Your task to perform on an android device: What's the weather? Image 0: 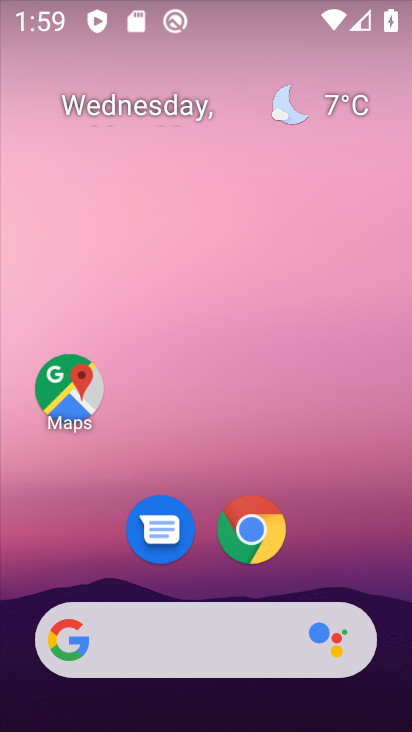
Step 0: press back button
Your task to perform on an android device: What's the weather? Image 1: 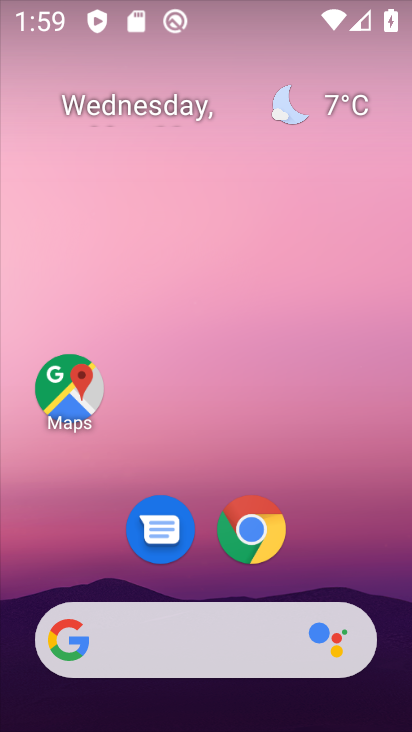
Step 1: press home button
Your task to perform on an android device: What's the weather? Image 2: 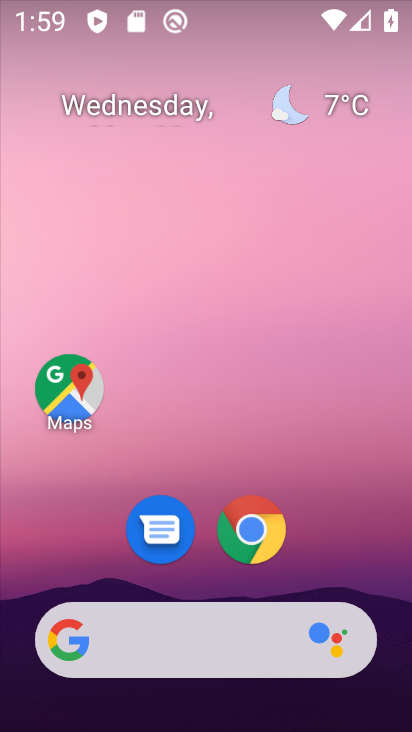
Step 2: click (162, 638)
Your task to perform on an android device: What's the weather? Image 3: 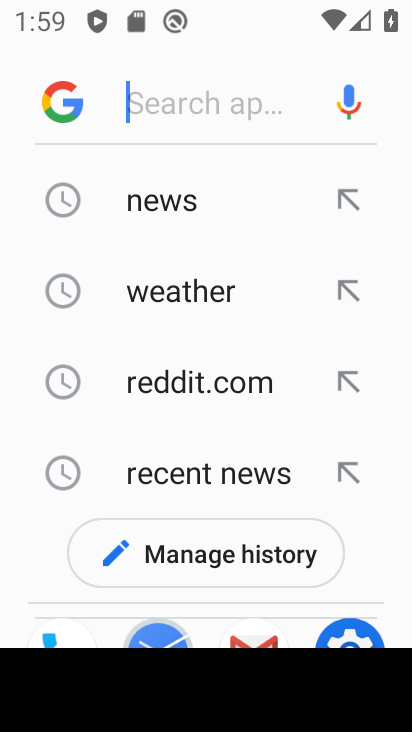
Step 3: click (161, 292)
Your task to perform on an android device: What's the weather? Image 4: 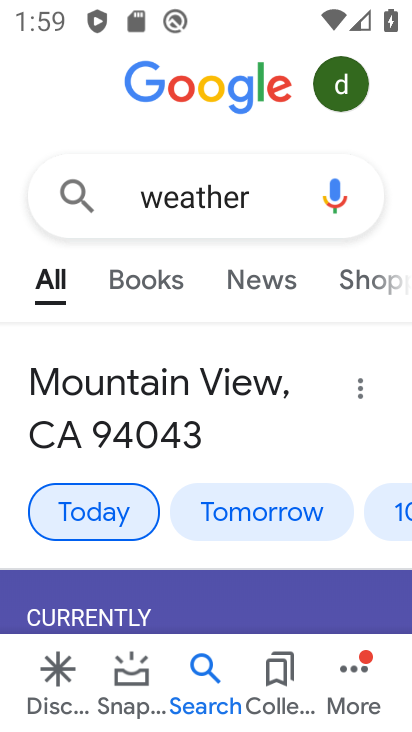
Step 4: task complete